Your task to perform on an android device: toggle sleep mode Image 0: 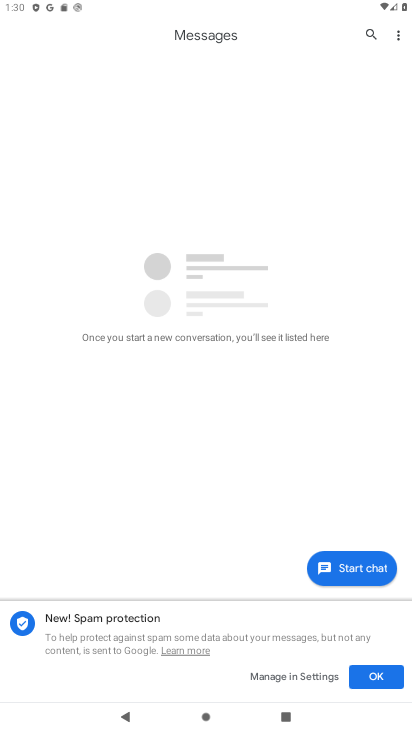
Step 0: drag from (195, 647) to (320, 618)
Your task to perform on an android device: toggle sleep mode Image 1: 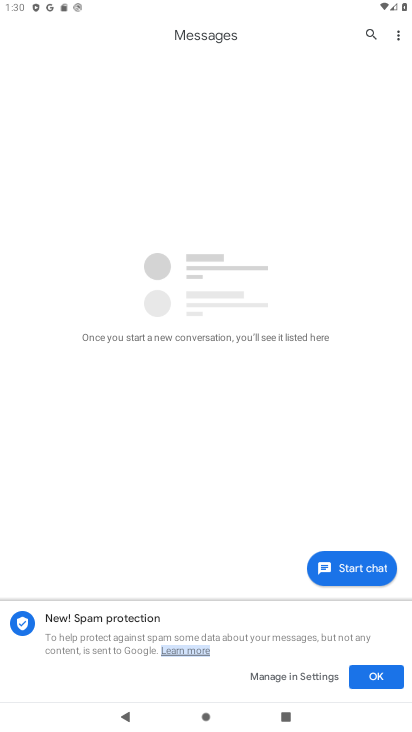
Step 1: press home button
Your task to perform on an android device: toggle sleep mode Image 2: 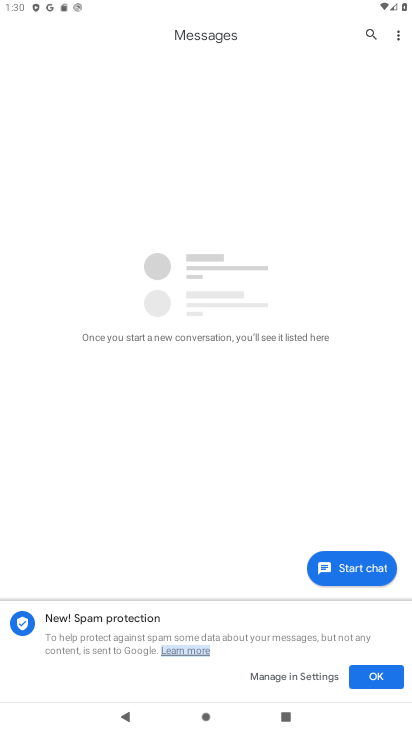
Step 2: drag from (320, 618) to (411, 548)
Your task to perform on an android device: toggle sleep mode Image 3: 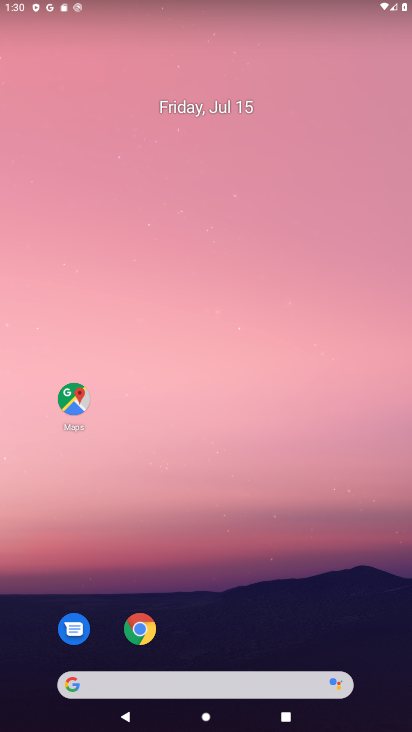
Step 3: drag from (199, 626) to (201, 248)
Your task to perform on an android device: toggle sleep mode Image 4: 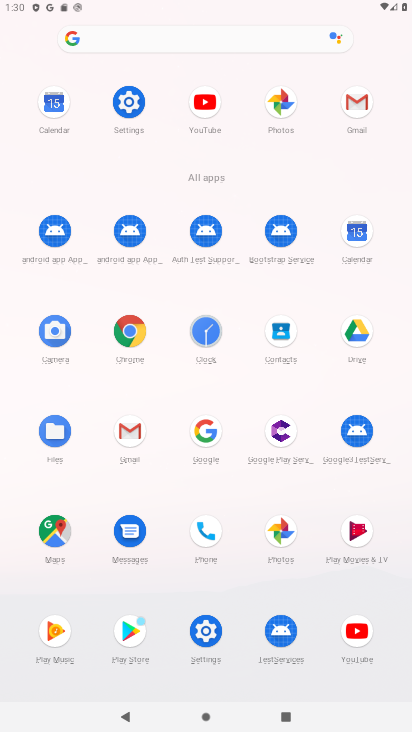
Step 4: click (129, 102)
Your task to perform on an android device: toggle sleep mode Image 5: 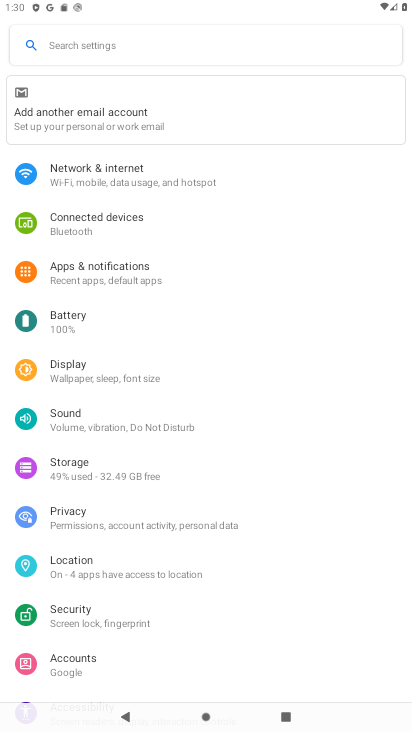
Step 5: task complete